Your task to perform on an android device: move an email to a new category in the gmail app Image 0: 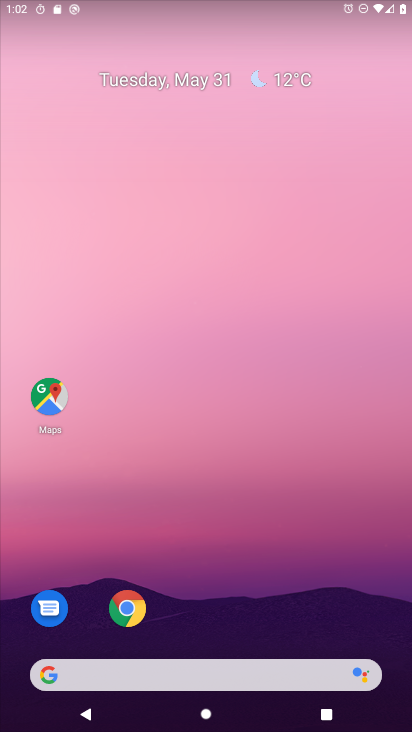
Step 0: drag from (327, 535) to (354, 10)
Your task to perform on an android device: move an email to a new category in the gmail app Image 1: 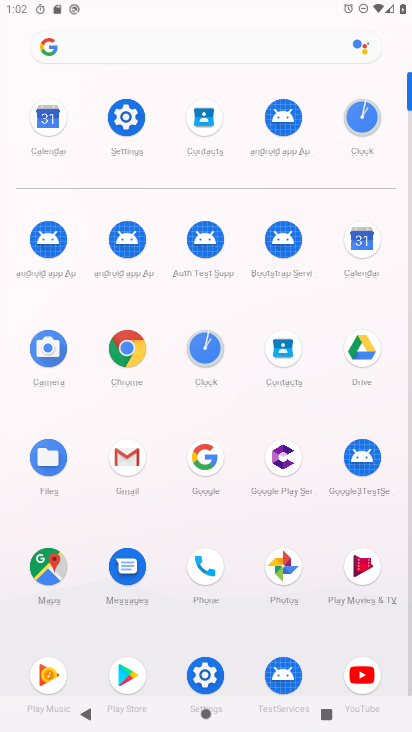
Step 1: click (126, 461)
Your task to perform on an android device: move an email to a new category in the gmail app Image 2: 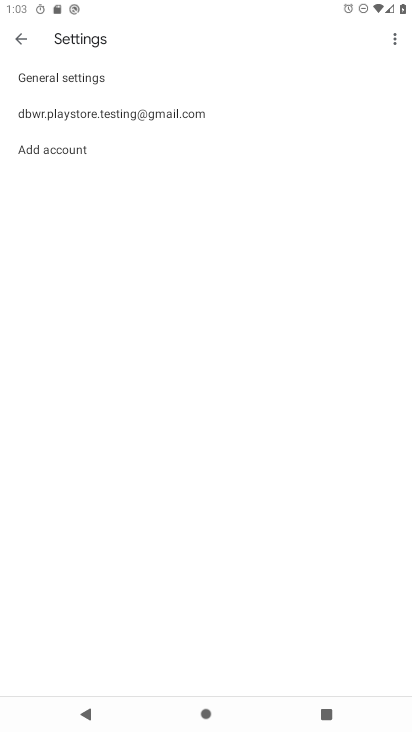
Step 2: click (19, 42)
Your task to perform on an android device: move an email to a new category in the gmail app Image 3: 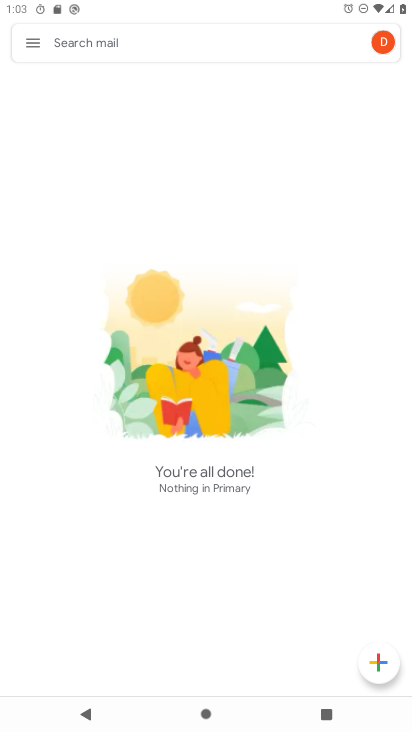
Step 3: click (36, 43)
Your task to perform on an android device: move an email to a new category in the gmail app Image 4: 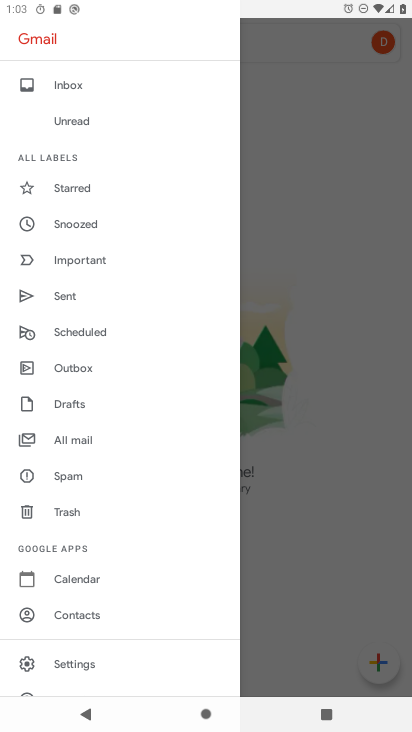
Step 4: click (77, 440)
Your task to perform on an android device: move an email to a new category in the gmail app Image 5: 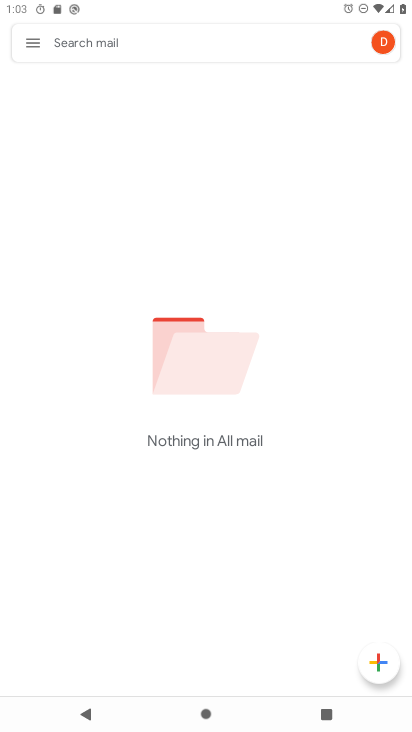
Step 5: task complete